Your task to perform on an android device: Open settings Image 0: 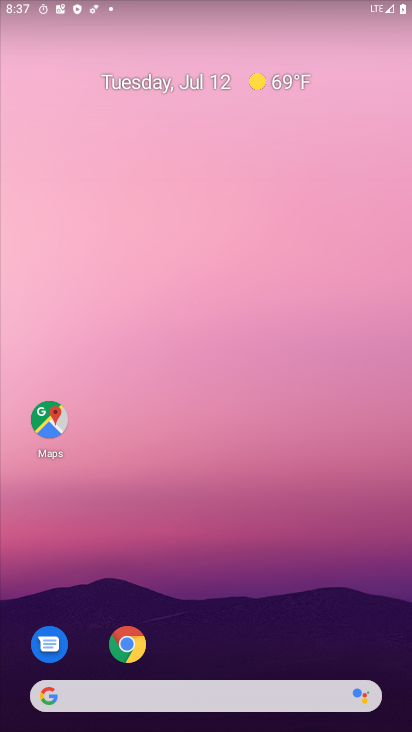
Step 0: drag from (208, 650) to (225, 13)
Your task to perform on an android device: Open settings Image 1: 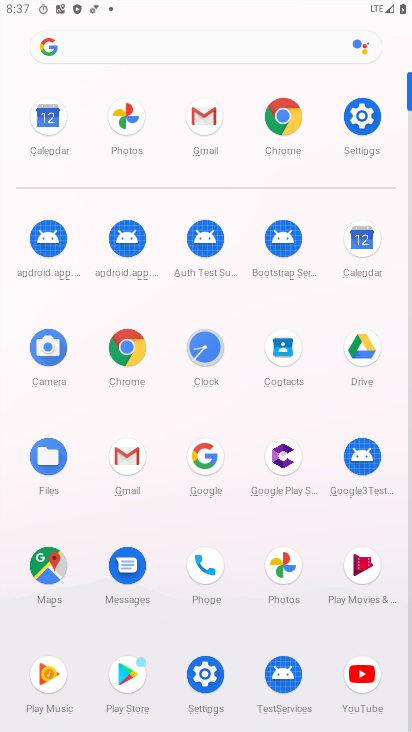
Step 1: click (358, 112)
Your task to perform on an android device: Open settings Image 2: 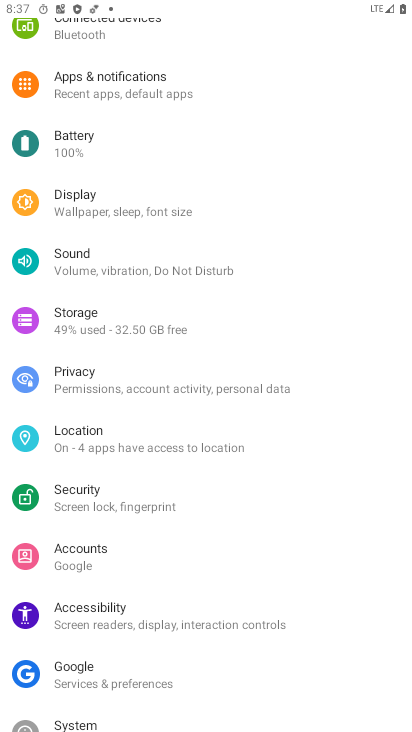
Step 2: task complete